Your task to perform on an android device: Open Chrome and go to the settings page Image 0: 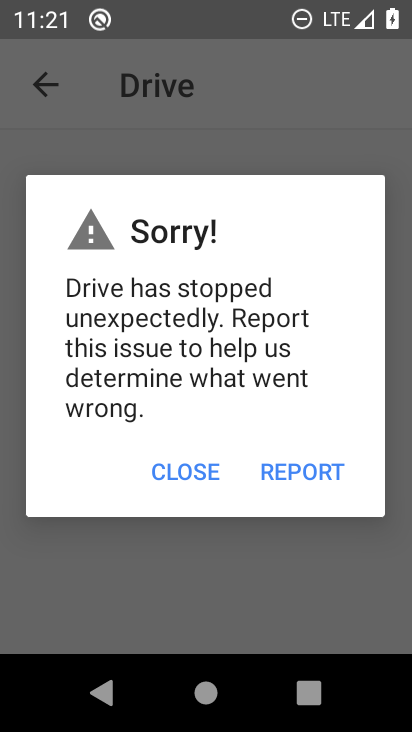
Step 0: click (252, 582)
Your task to perform on an android device: Open Chrome and go to the settings page Image 1: 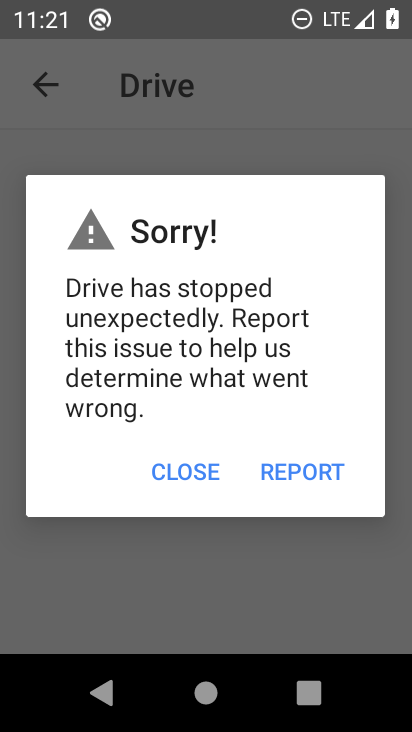
Step 1: click (290, 563)
Your task to perform on an android device: Open Chrome and go to the settings page Image 2: 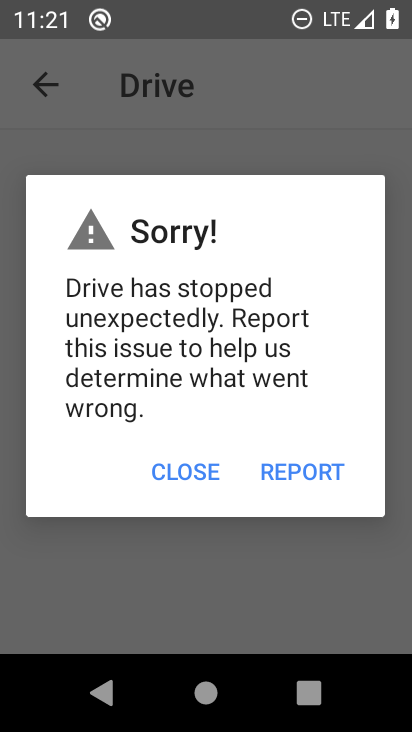
Step 2: press home button
Your task to perform on an android device: Open Chrome and go to the settings page Image 3: 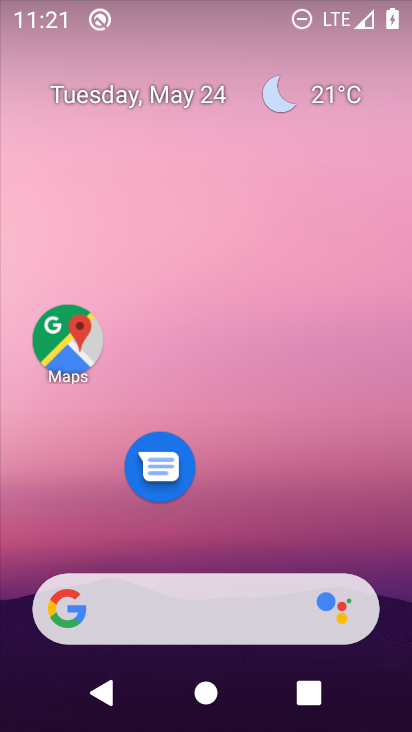
Step 3: drag from (266, 241) to (290, 39)
Your task to perform on an android device: Open Chrome and go to the settings page Image 4: 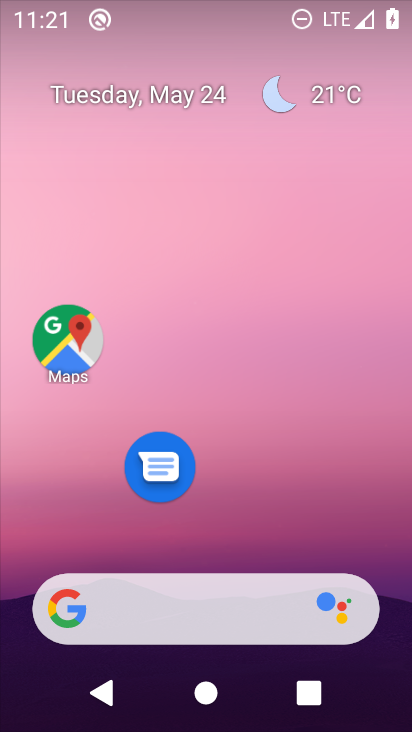
Step 4: drag from (216, 456) to (265, 10)
Your task to perform on an android device: Open Chrome and go to the settings page Image 5: 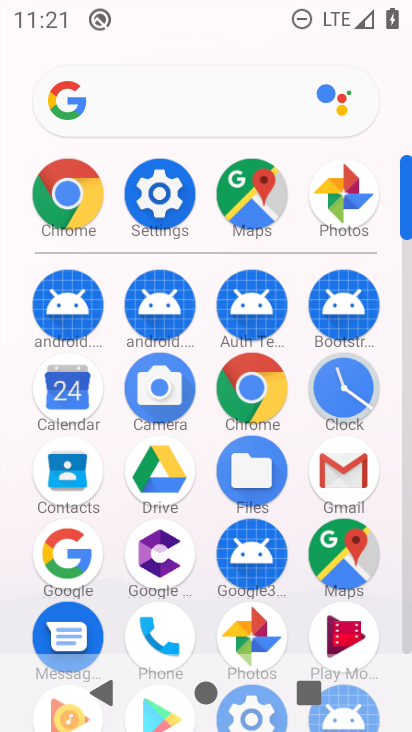
Step 5: click (246, 384)
Your task to perform on an android device: Open Chrome and go to the settings page Image 6: 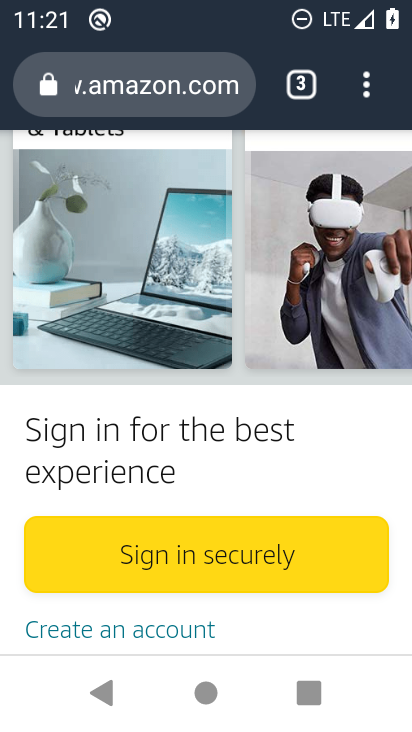
Step 6: click (372, 78)
Your task to perform on an android device: Open Chrome and go to the settings page Image 7: 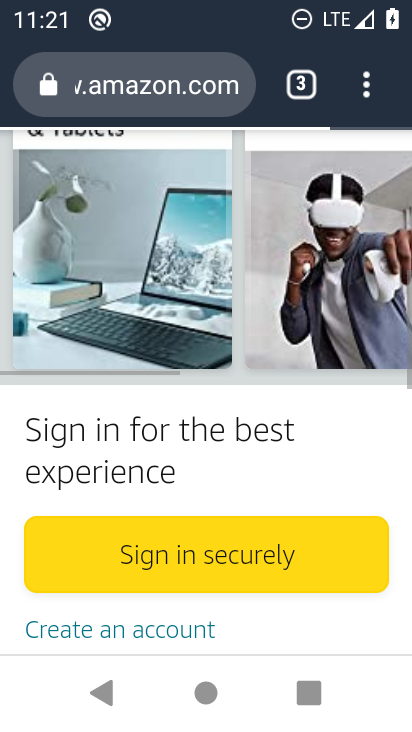
Step 7: click (372, 78)
Your task to perform on an android device: Open Chrome and go to the settings page Image 8: 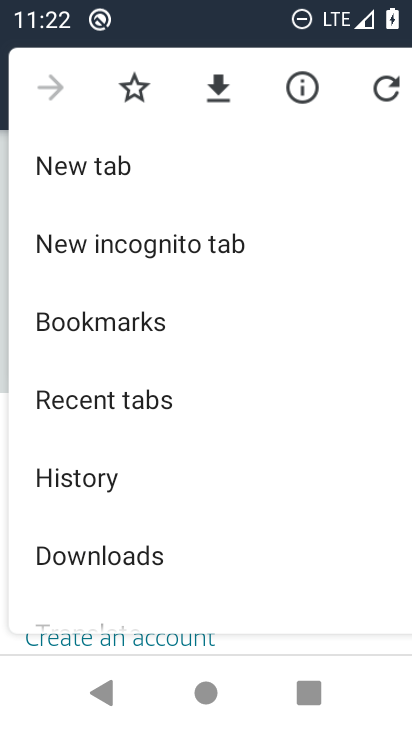
Step 8: drag from (195, 532) to (269, 88)
Your task to perform on an android device: Open Chrome and go to the settings page Image 9: 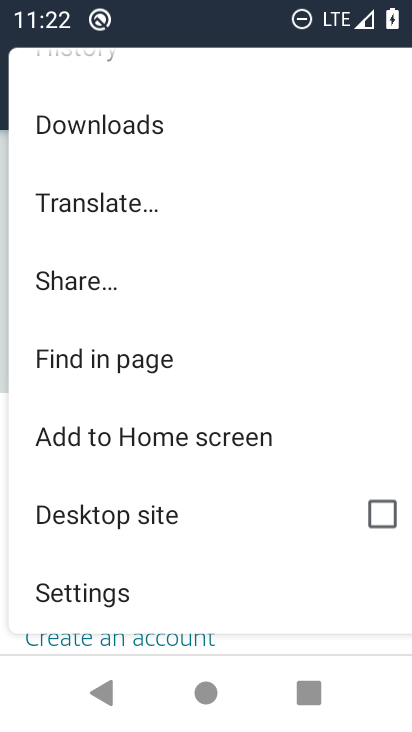
Step 9: click (99, 583)
Your task to perform on an android device: Open Chrome and go to the settings page Image 10: 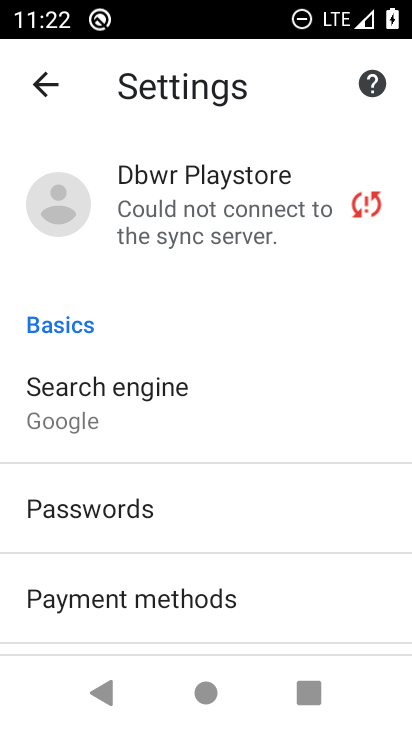
Step 10: task complete